Your task to perform on an android device: What's the weather going to be tomorrow? Image 0: 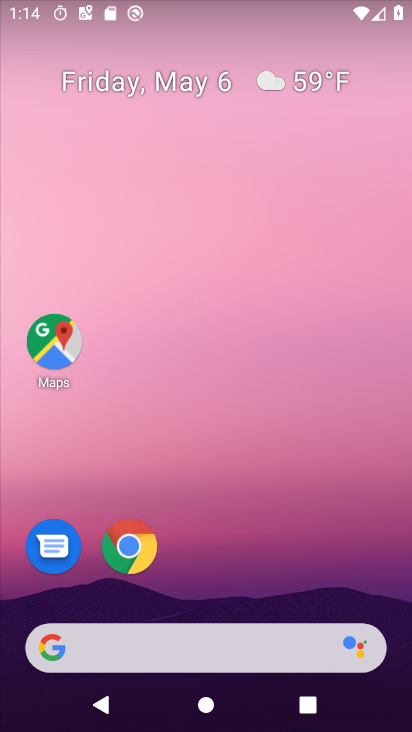
Step 0: click (326, 84)
Your task to perform on an android device: What's the weather going to be tomorrow? Image 1: 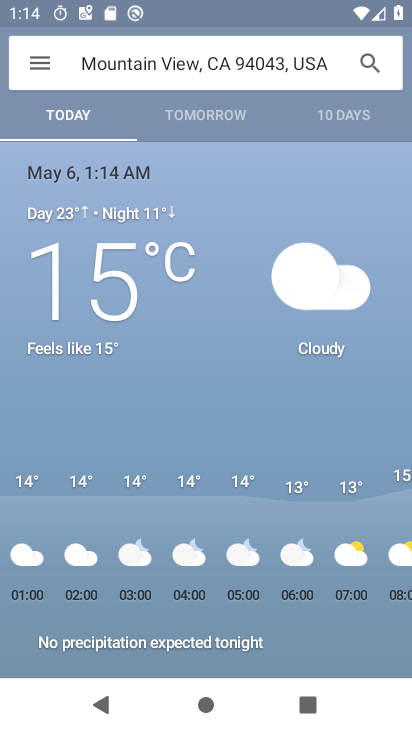
Step 1: click (219, 111)
Your task to perform on an android device: What's the weather going to be tomorrow? Image 2: 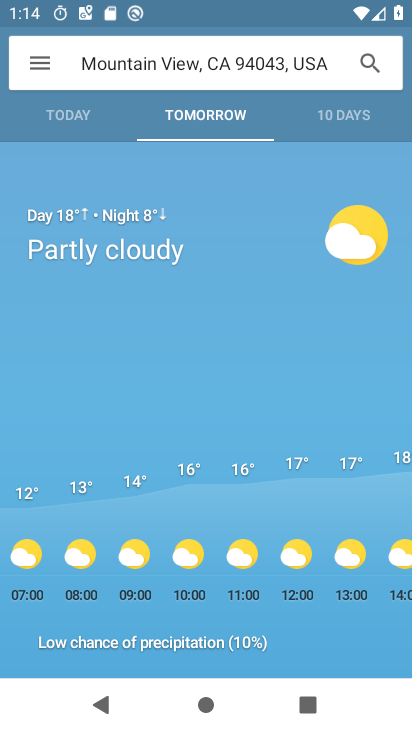
Step 2: task complete